Your task to perform on an android device: add a label to a message in the gmail app Image 0: 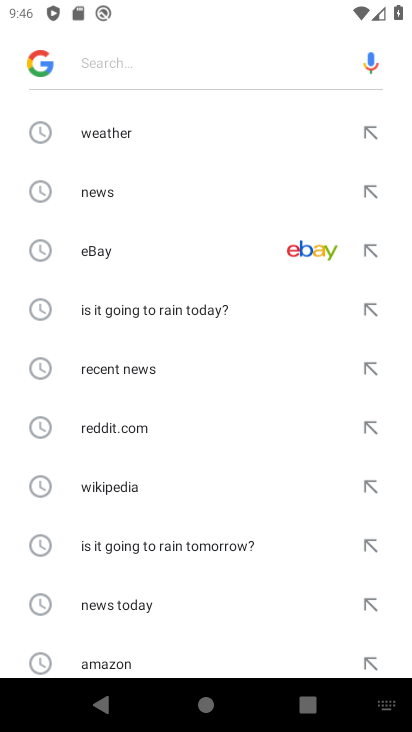
Step 0: press back button
Your task to perform on an android device: add a label to a message in the gmail app Image 1: 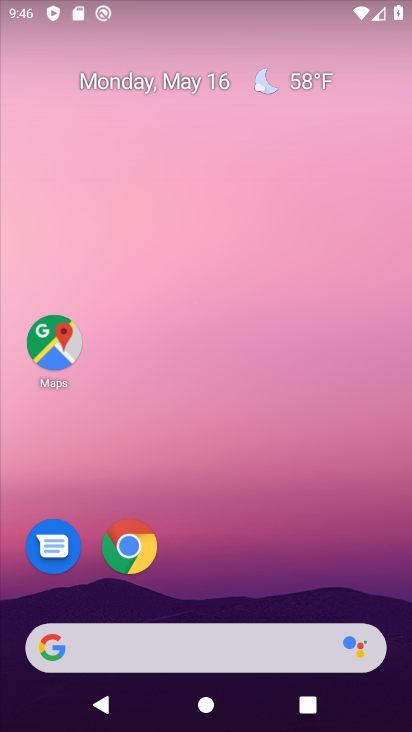
Step 1: drag from (259, 589) to (242, 266)
Your task to perform on an android device: add a label to a message in the gmail app Image 2: 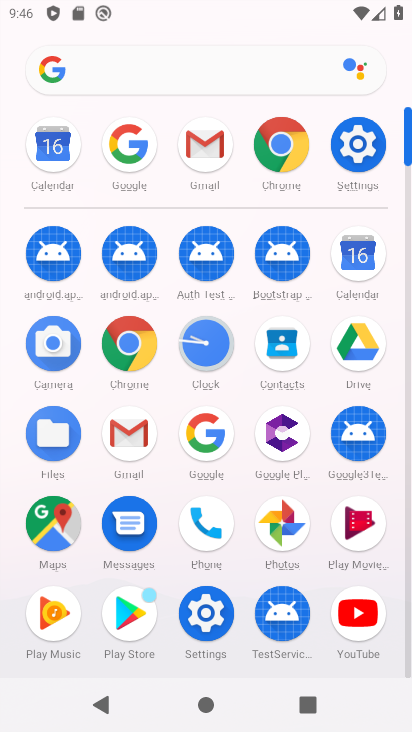
Step 2: click (202, 143)
Your task to perform on an android device: add a label to a message in the gmail app Image 3: 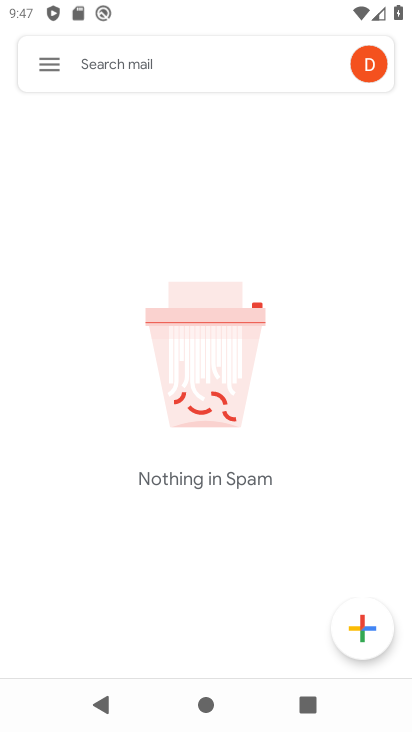
Step 3: click (39, 67)
Your task to perform on an android device: add a label to a message in the gmail app Image 4: 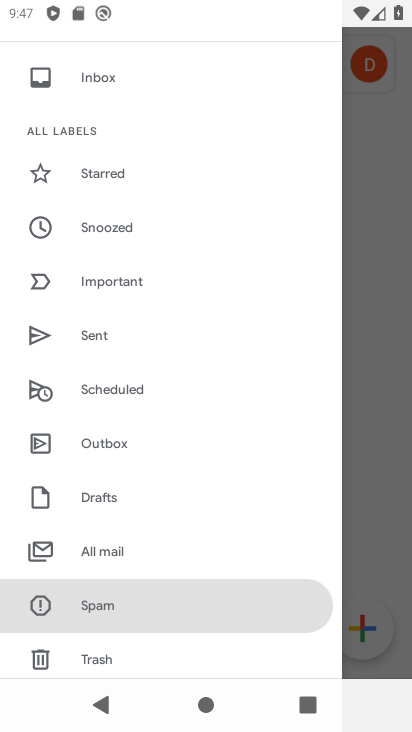
Step 4: task complete